Your task to perform on an android device: Is it going to rain today? Image 0: 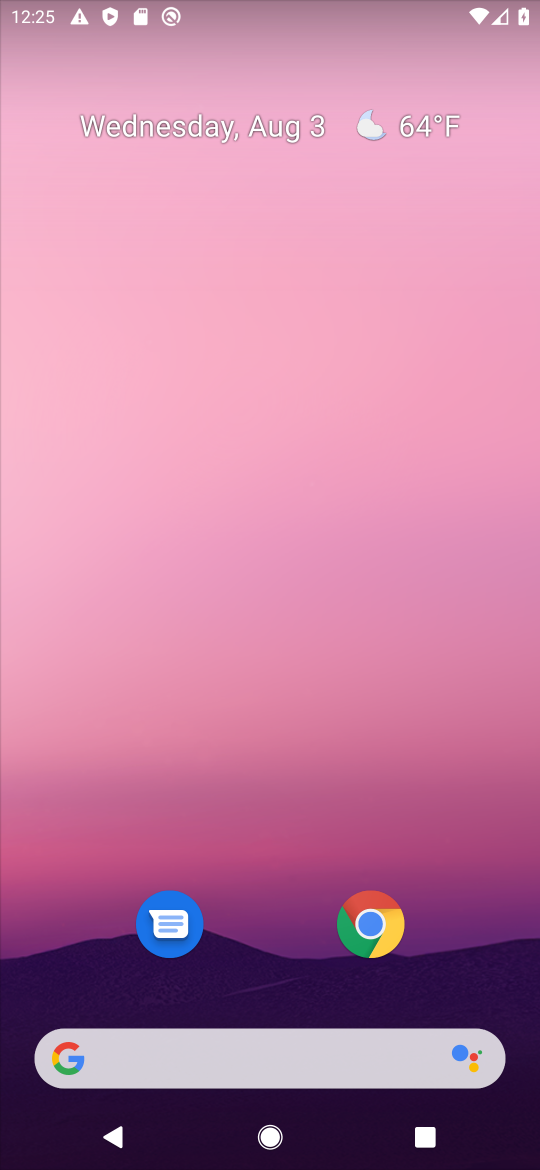
Step 0: click (371, 138)
Your task to perform on an android device: Is it going to rain today? Image 1: 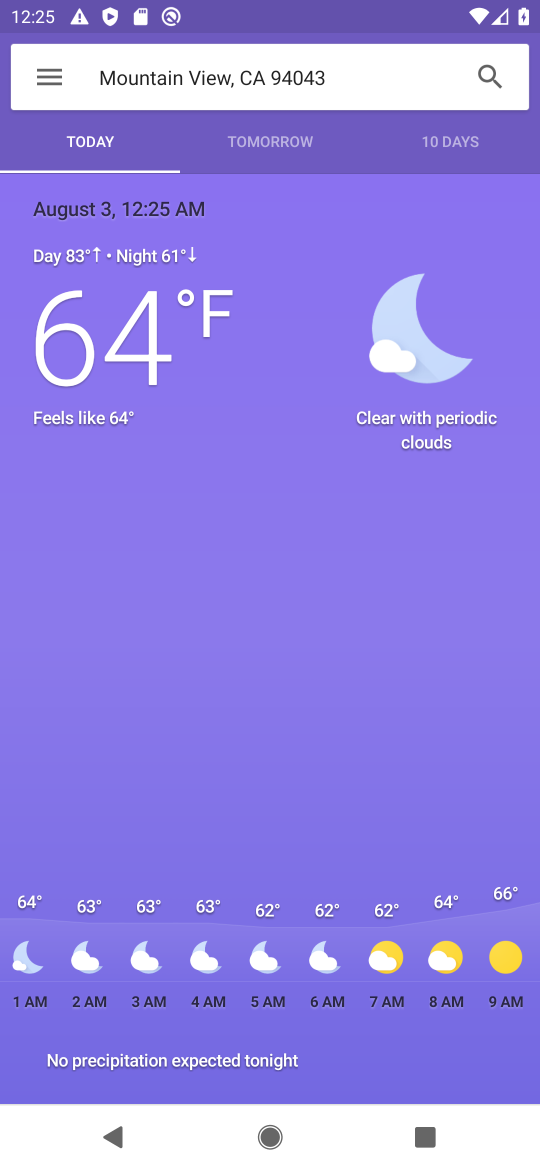
Step 1: task complete